Your task to perform on an android device: star an email in the gmail app Image 0: 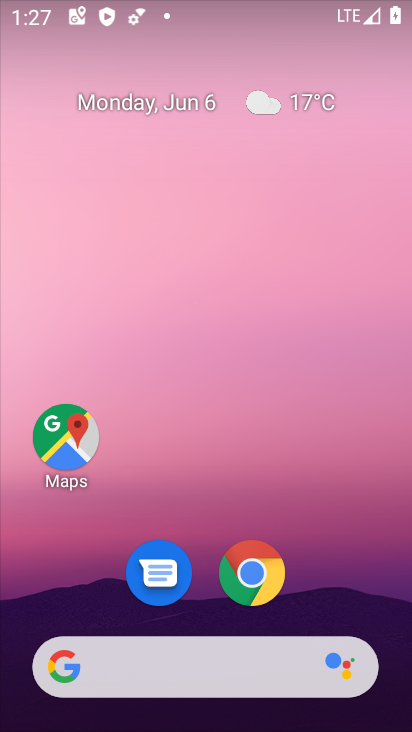
Step 0: drag from (376, 607) to (368, 219)
Your task to perform on an android device: star an email in the gmail app Image 1: 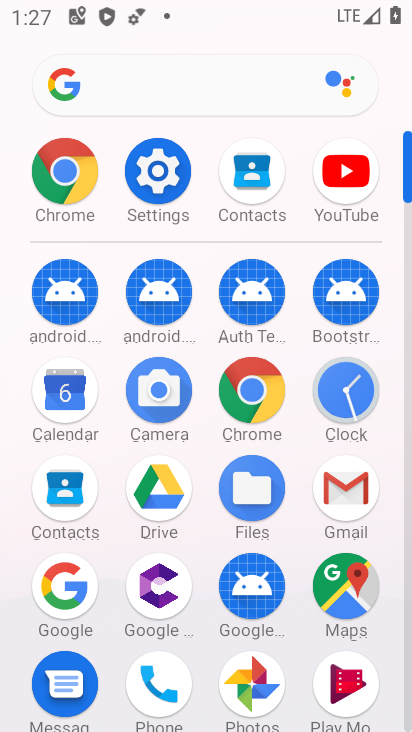
Step 1: click (350, 490)
Your task to perform on an android device: star an email in the gmail app Image 2: 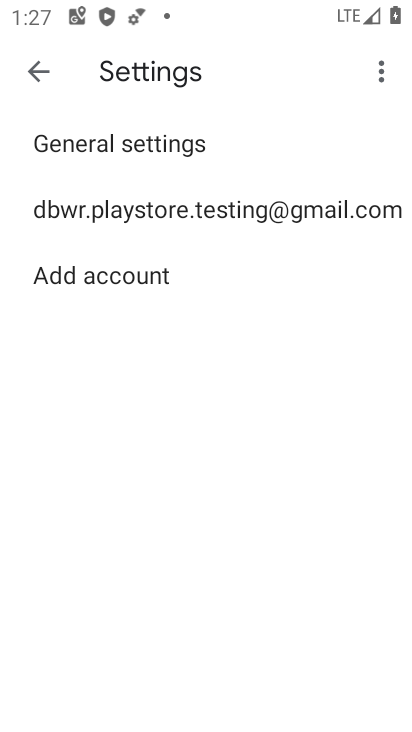
Step 2: task complete